Your task to perform on an android device: Clear all items from cart on target. Search for bose soundlink on target, select the first entry, add it to the cart, then select checkout. Image 0: 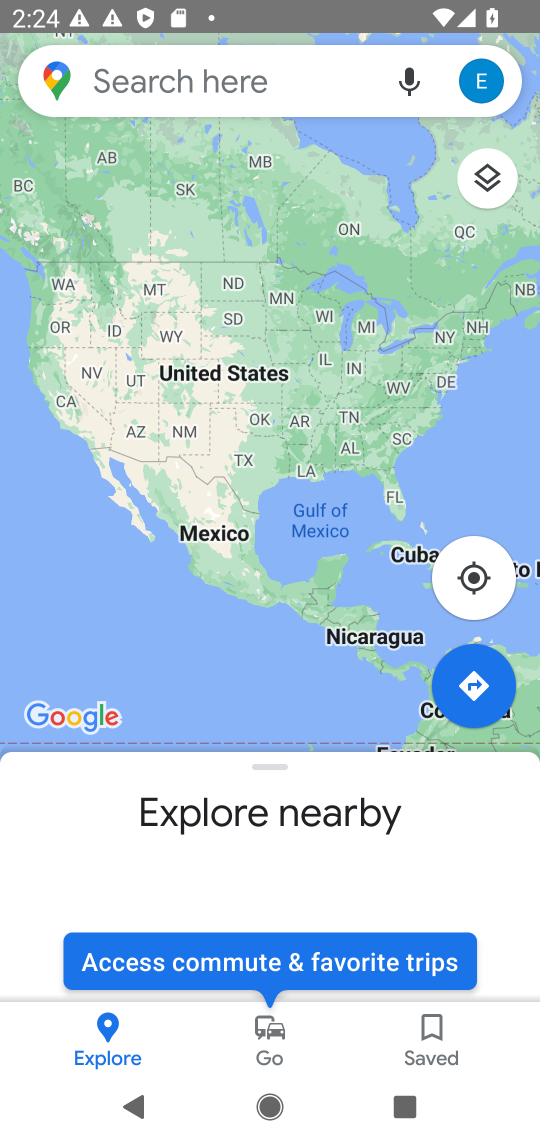
Step 0: press home button
Your task to perform on an android device: Clear all items from cart on target. Search for bose soundlink on target, select the first entry, add it to the cart, then select checkout. Image 1: 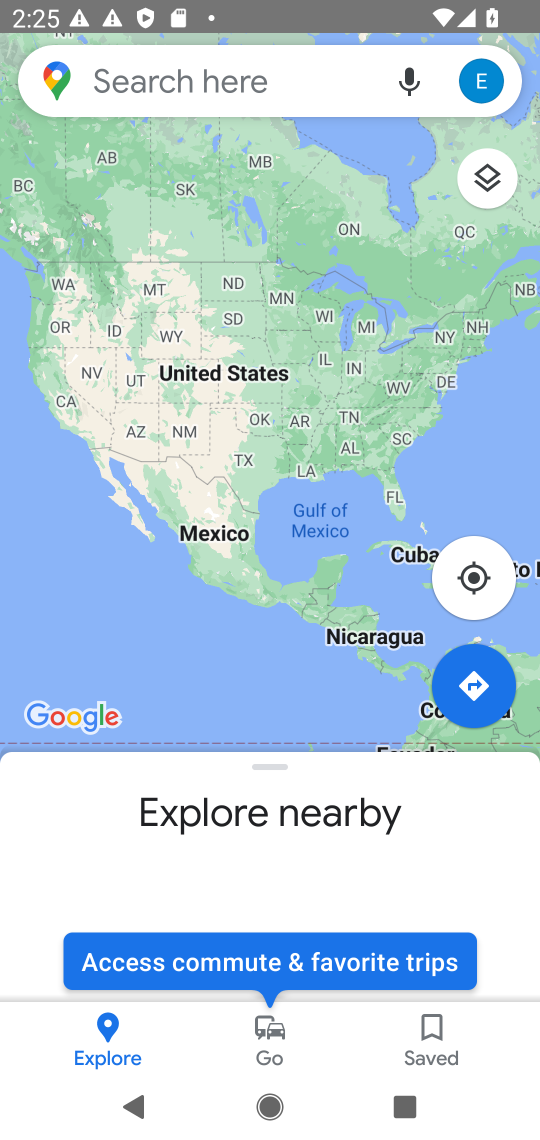
Step 1: press home button
Your task to perform on an android device: Clear all items from cart on target. Search for bose soundlink on target, select the first entry, add it to the cart, then select checkout. Image 2: 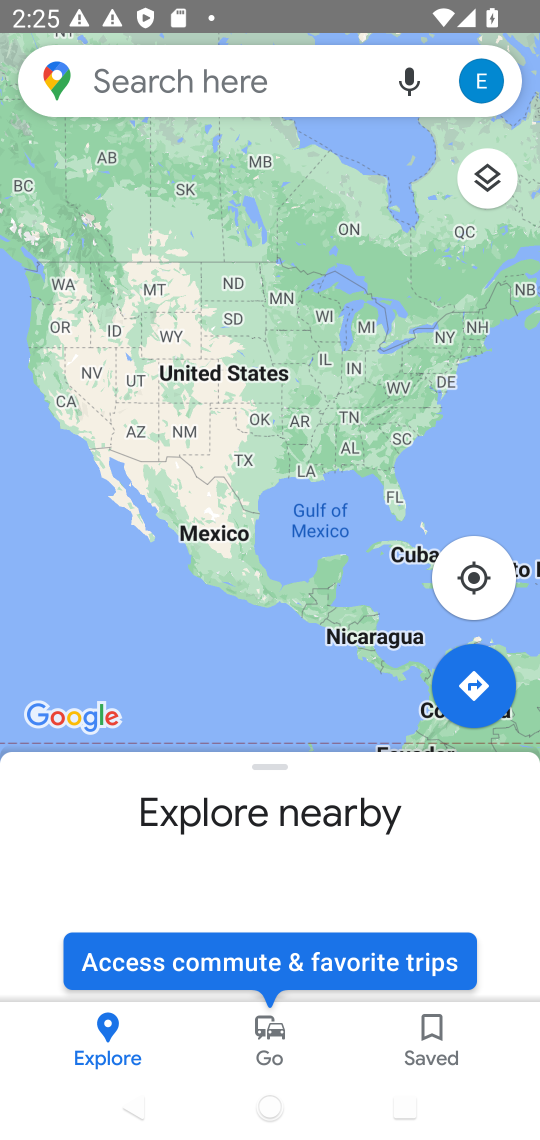
Step 2: drag from (307, 771) to (343, 235)
Your task to perform on an android device: Clear all items from cart on target. Search for bose soundlink on target, select the first entry, add it to the cart, then select checkout. Image 3: 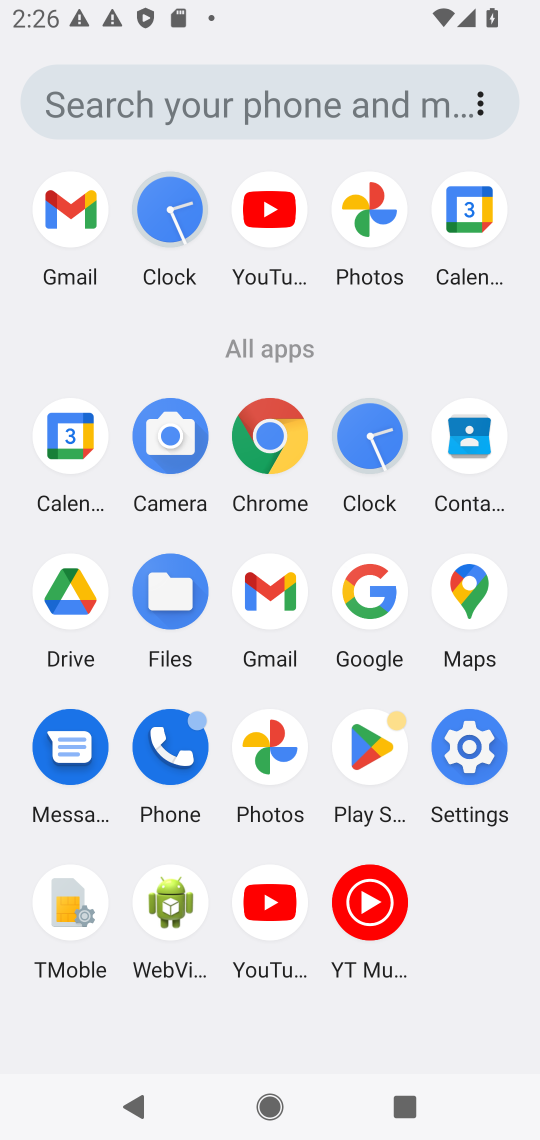
Step 3: click (364, 604)
Your task to perform on an android device: Clear all items from cart on target. Search for bose soundlink on target, select the first entry, add it to the cart, then select checkout. Image 4: 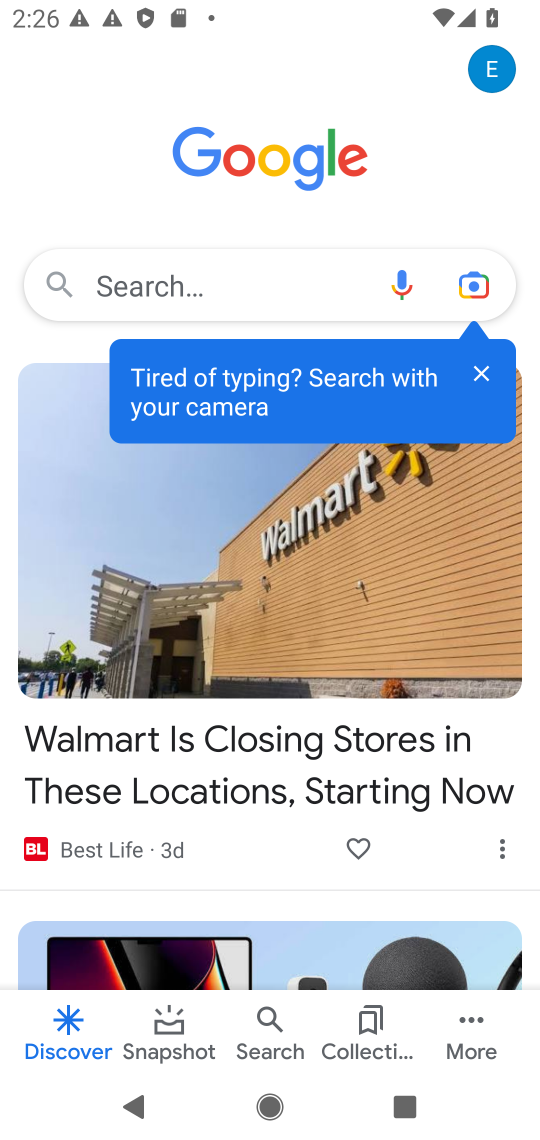
Step 4: click (185, 287)
Your task to perform on an android device: Clear all items from cart on target. Search for bose soundlink on target, select the first entry, add it to the cart, then select checkout. Image 5: 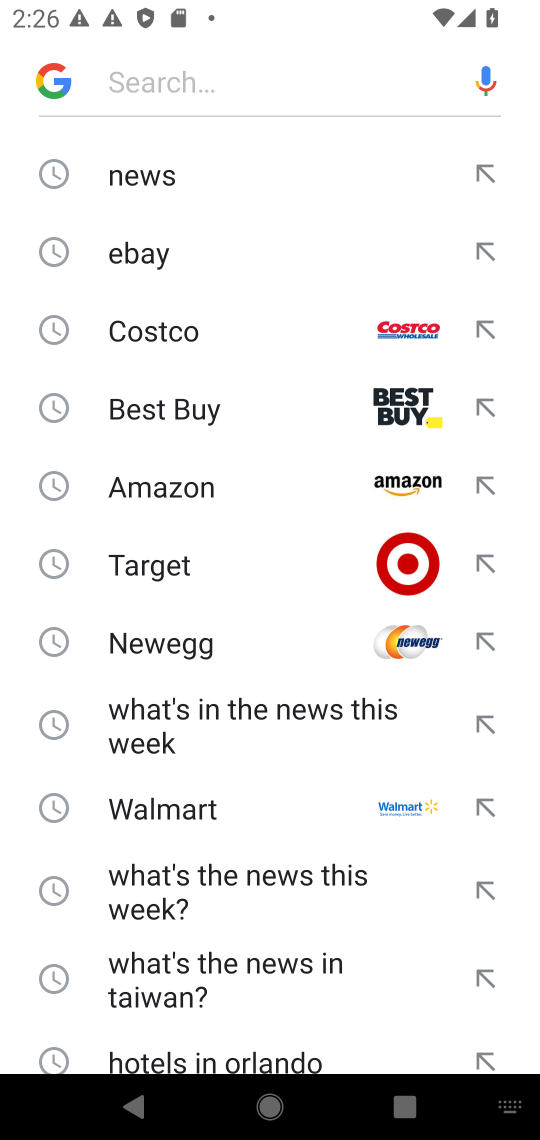
Step 5: type "target."
Your task to perform on an android device: Clear all items from cart on target. Search for bose soundlink on target, select the first entry, add it to the cart, then select checkout. Image 6: 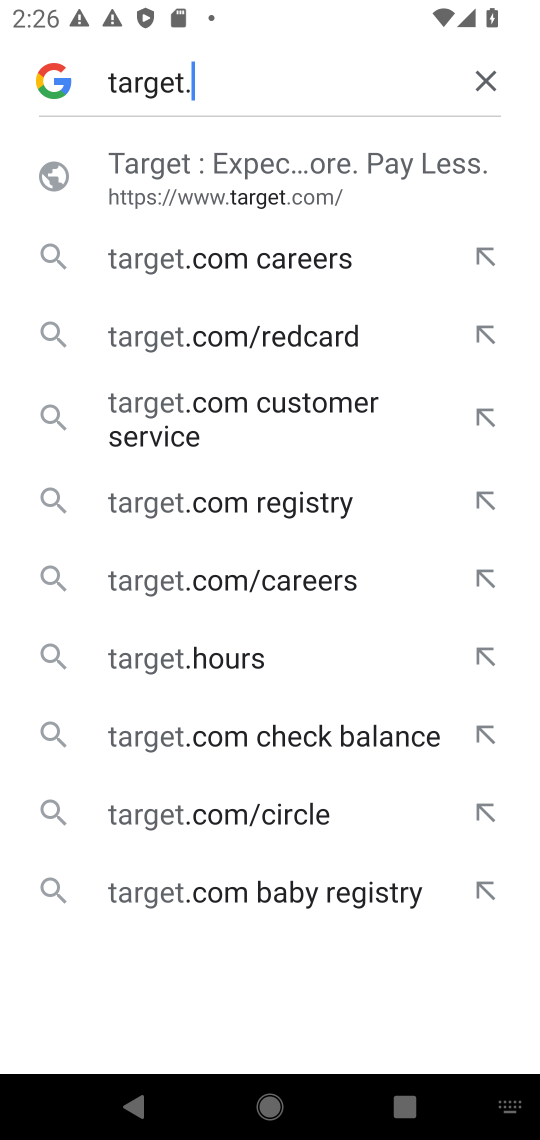
Step 6: click (255, 168)
Your task to perform on an android device: Clear all items from cart on target. Search for bose soundlink on target, select the first entry, add it to the cart, then select checkout. Image 7: 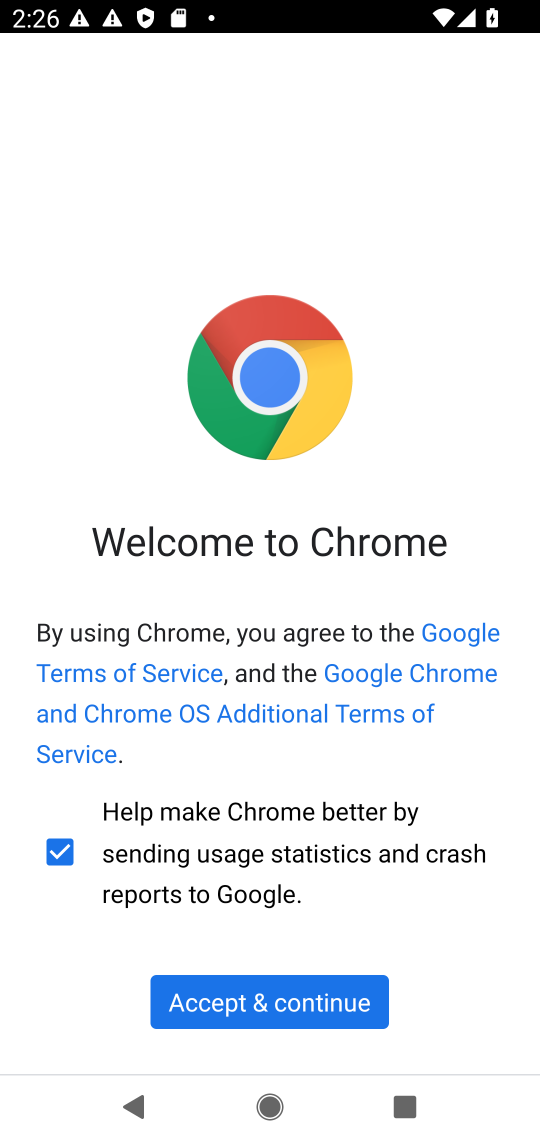
Step 7: click (217, 994)
Your task to perform on an android device: Clear all items from cart on target. Search for bose soundlink on target, select the first entry, add it to the cart, then select checkout. Image 8: 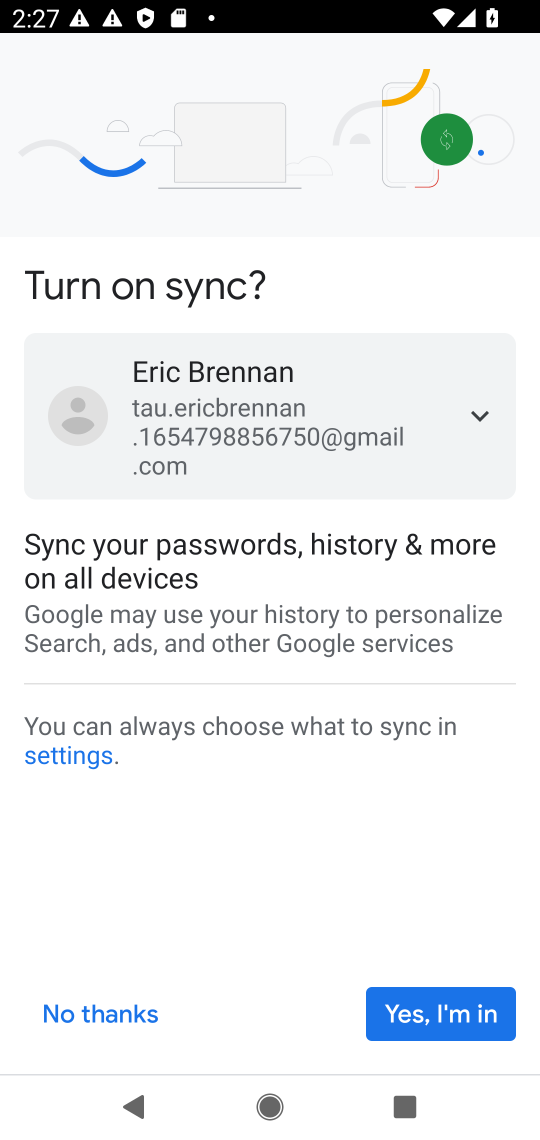
Step 8: click (405, 1017)
Your task to perform on an android device: Clear all items from cart on target. Search for bose soundlink on target, select the first entry, add it to the cart, then select checkout. Image 9: 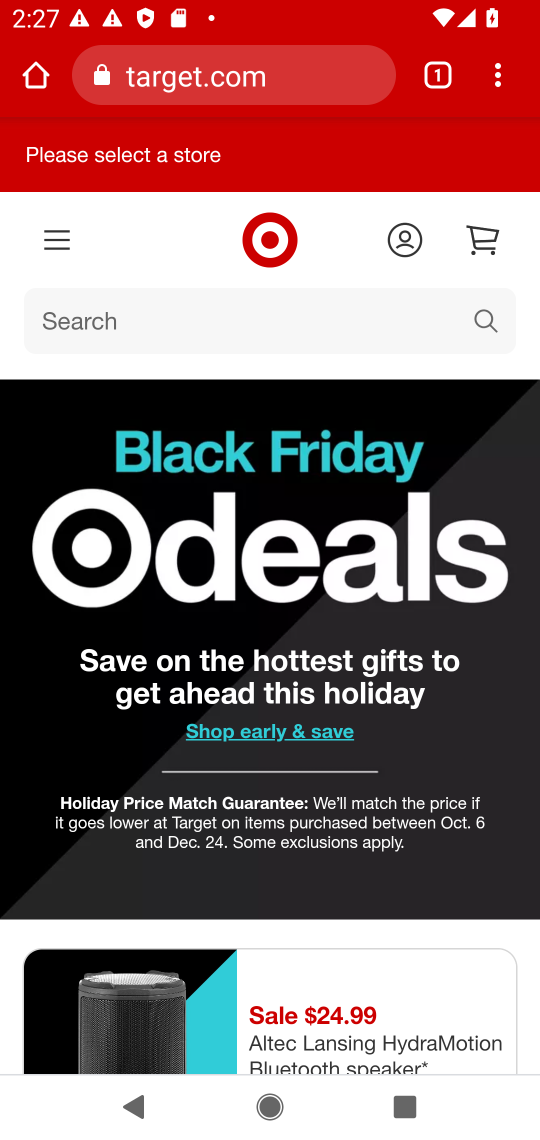
Step 9: click (491, 235)
Your task to perform on an android device: Clear all items from cart on target. Search for bose soundlink on target, select the first entry, add it to the cart, then select checkout. Image 10: 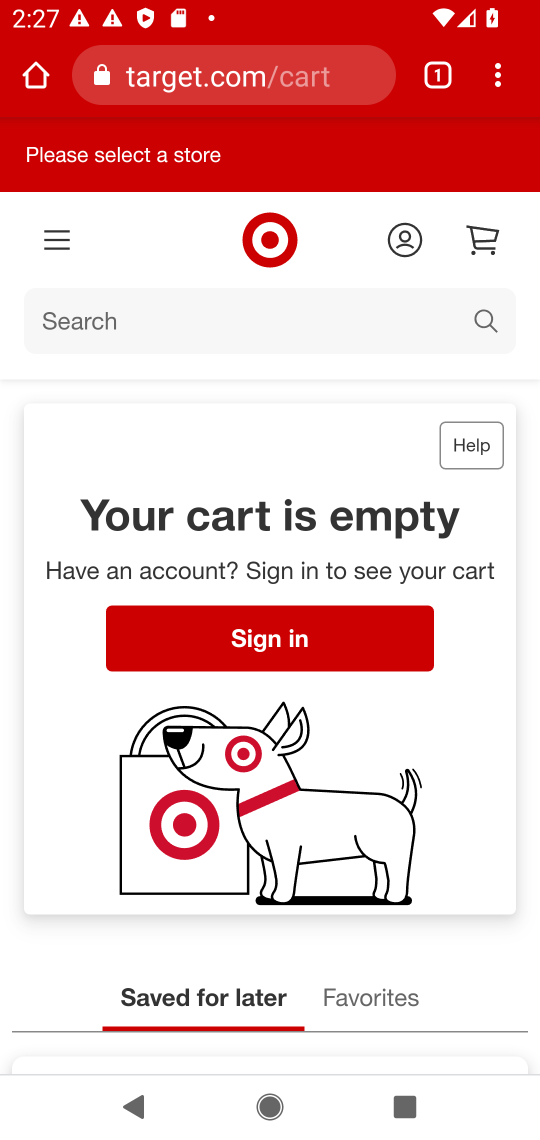
Step 10: click (306, 312)
Your task to perform on an android device: Clear all items from cart on target. Search for bose soundlink on target, select the first entry, add it to the cart, then select checkout. Image 11: 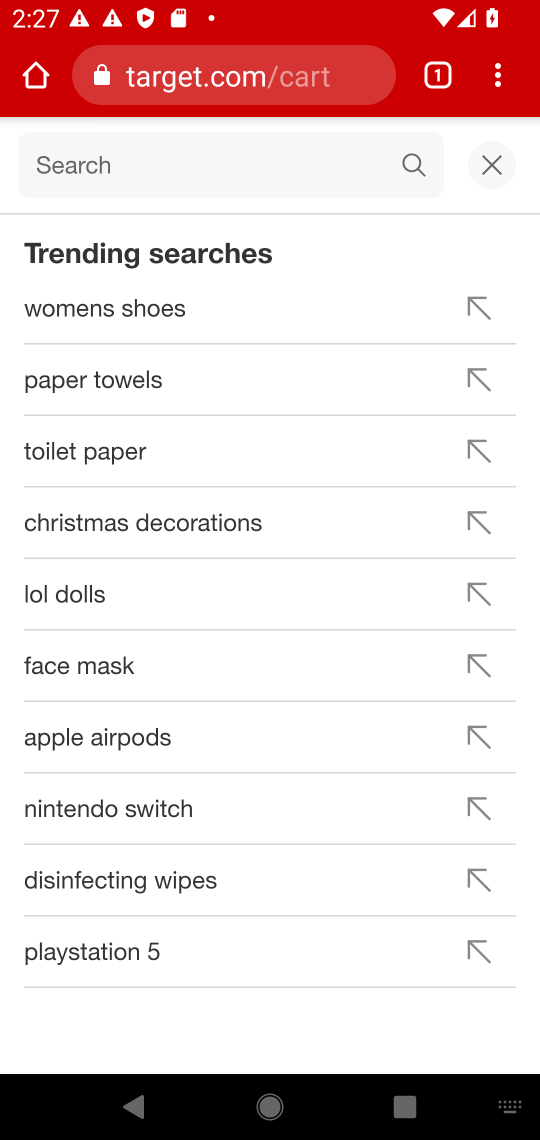
Step 11: drag from (70, 151) to (173, 178)
Your task to perform on an android device: Clear all items from cart on target. Search for bose soundlink on target, select the first entry, add it to the cart, then select checkout. Image 12: 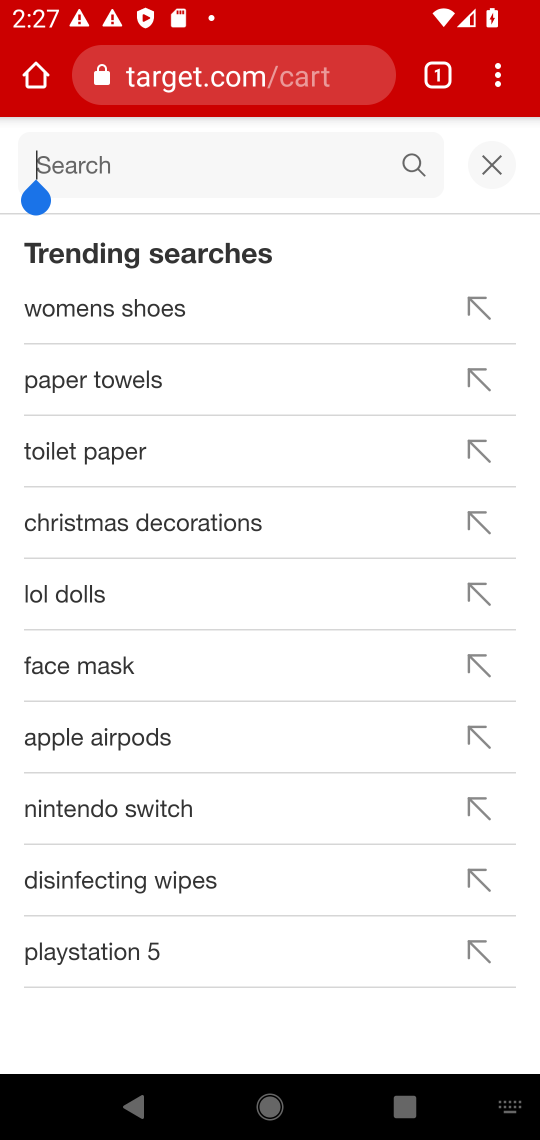
Step 12: type "bose soundlink"
Your task to perform on an android device: Clear all items from cart on target. Search for bose soundlink on target, select the first entry, add it to the cart, then select checkout. Image 13: 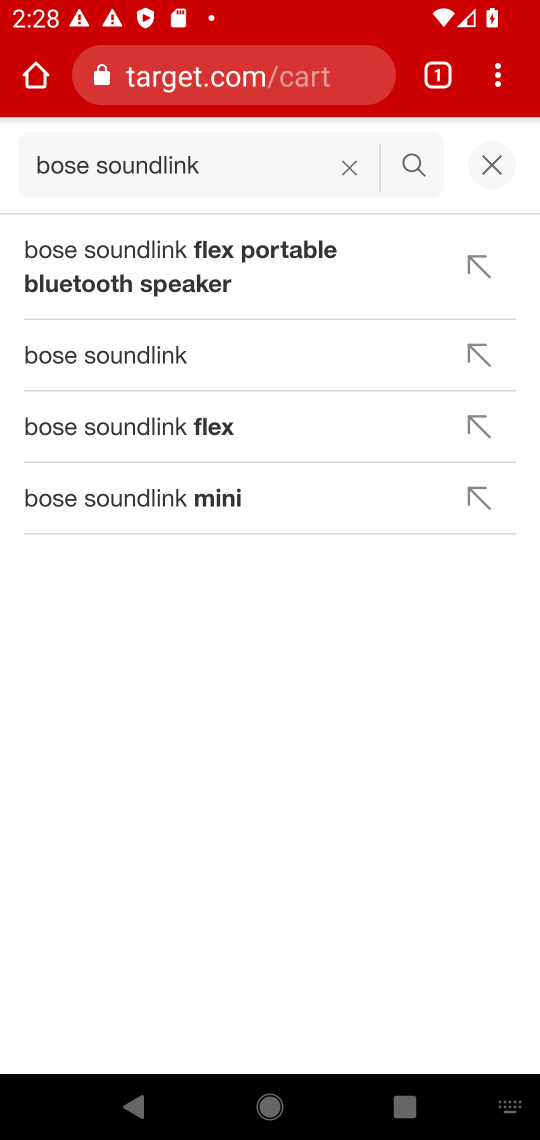
Step 13: click (119, 352)
Your task to perform on an android device: Clear all items from cart on target. Search for bose soundlink on target, select the first entry, add it to the cart, then select checkout. Image 14: 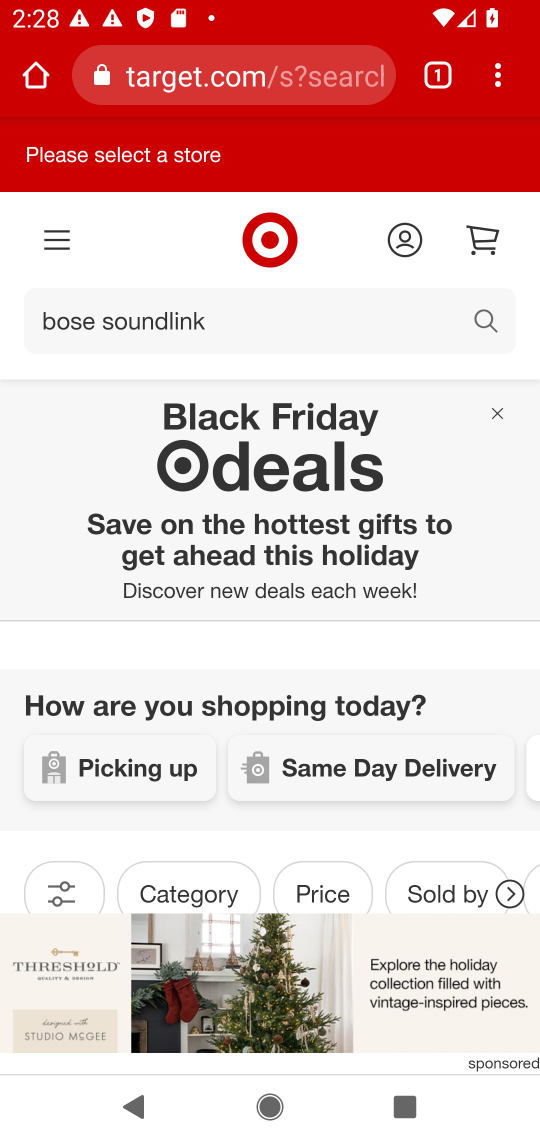
Step 14: drag from (254, 853) to (353, 314)
Your task to perform on an android device: Clear all items from cart on target. Search for bose soundlink on target, select the first entry, add it to the cart, then select checkout. Image 15: 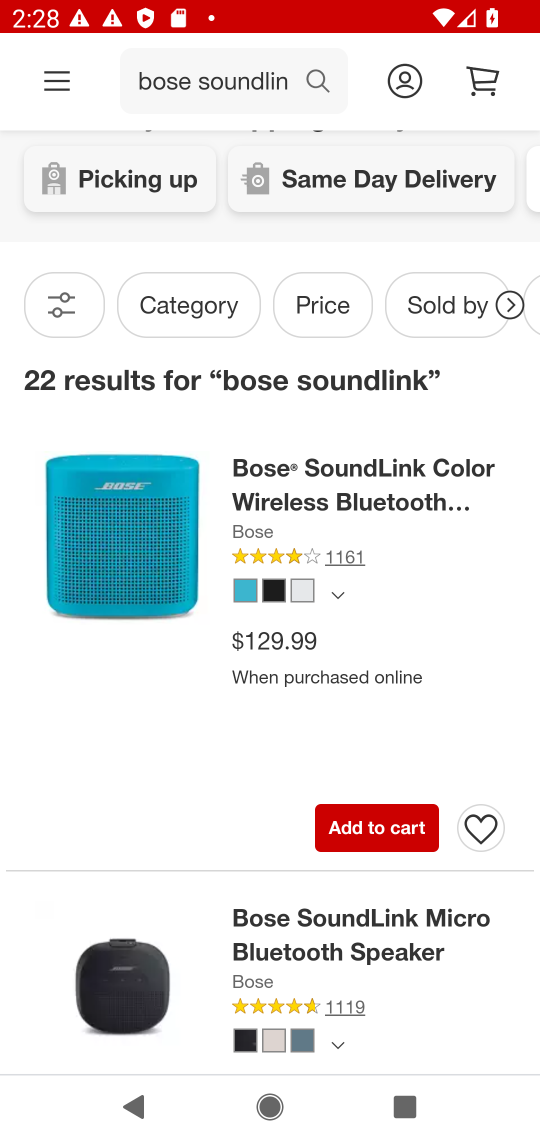
Step 15: click (396, 817)
Your task to perform on an android device: Clear all items from cart on target. Search for bose soundlink on target, select the first entry, add it to the cart, then select checkout. Image 16: 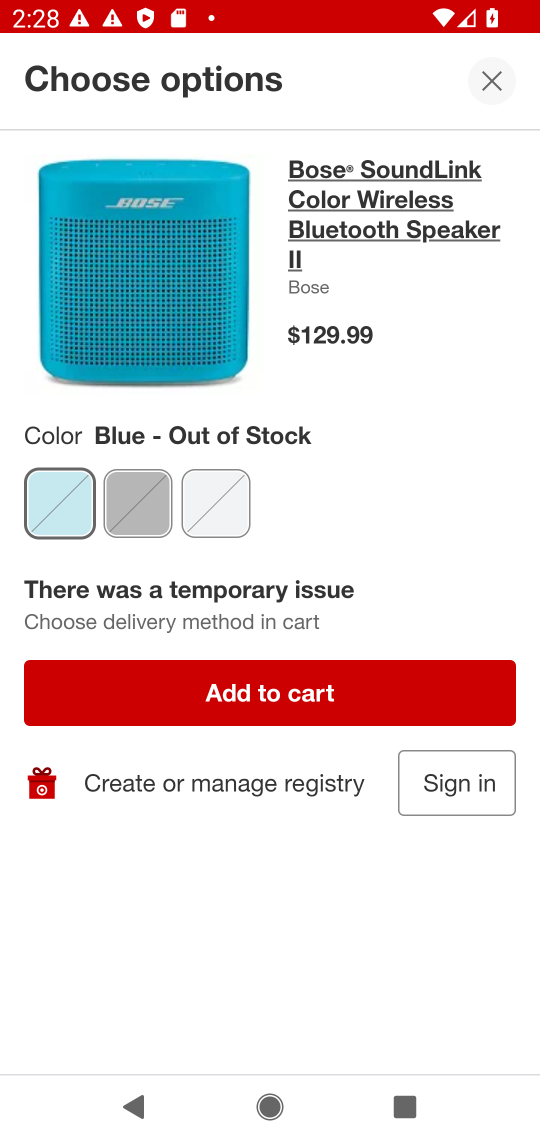
Step 16: click (332, 699)
Your task to perform on an android device: Clear all items from cart on target. Search for bose soundlink on target, select the first entry, add it to the cart, then select checkout. Image 17: 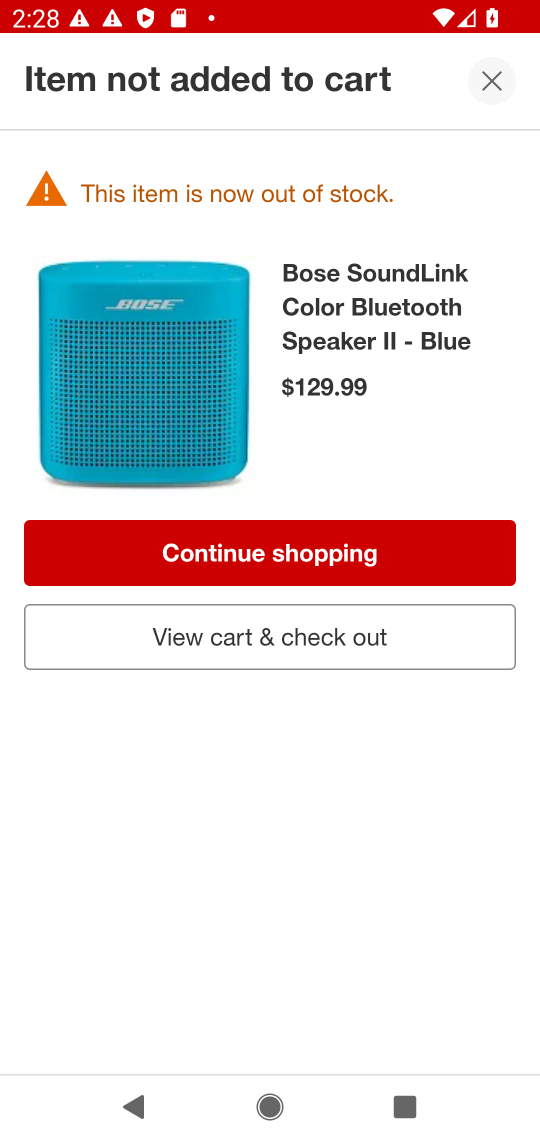
Step 17: click (326, 640)
Your task to perform on an android device: Clear all items from cart on target. Search for bose soundlink on target, select the first entry, add it to the cart, then select checkout. Image 18: 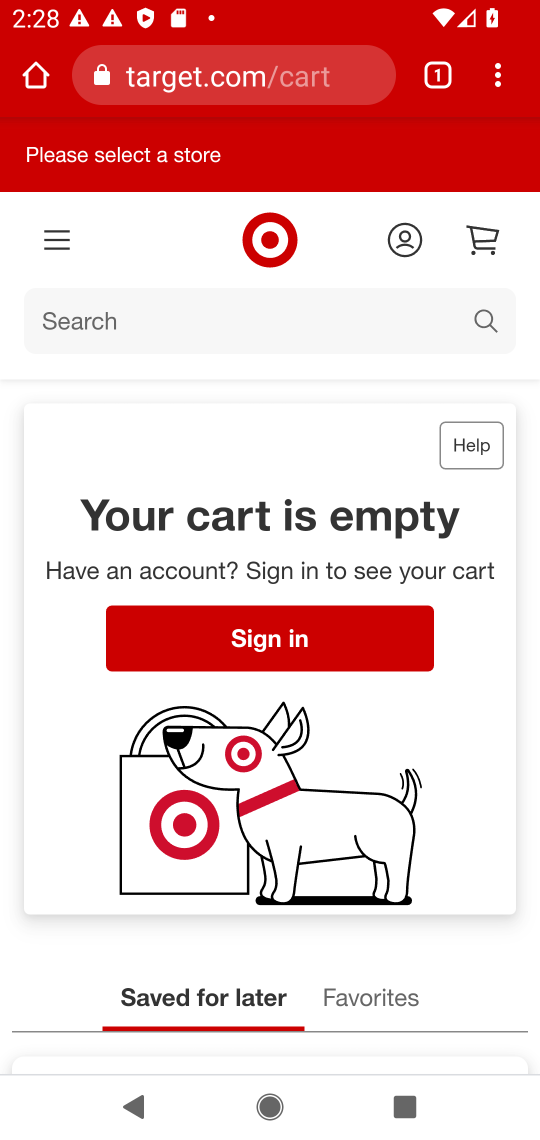
Step 18: task complete